Your task to perform on an android device: Open accessibility settings Image 0: 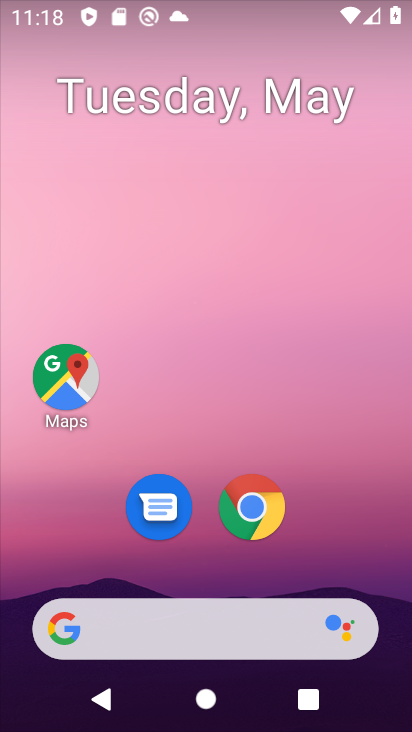
Step 0: drag from (256, 637) to (245, 163)
Your task to perform on an android device: Open accessibility settings Image 1: 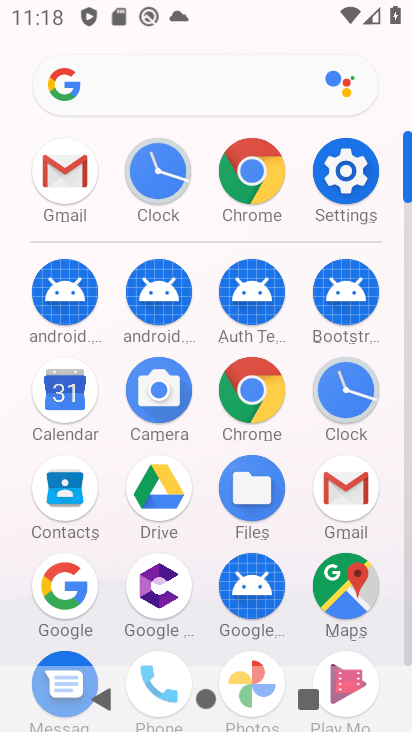
Step 1: click (339, 188)
Your task to perform on an android device: Open accessibility settings Image 2: 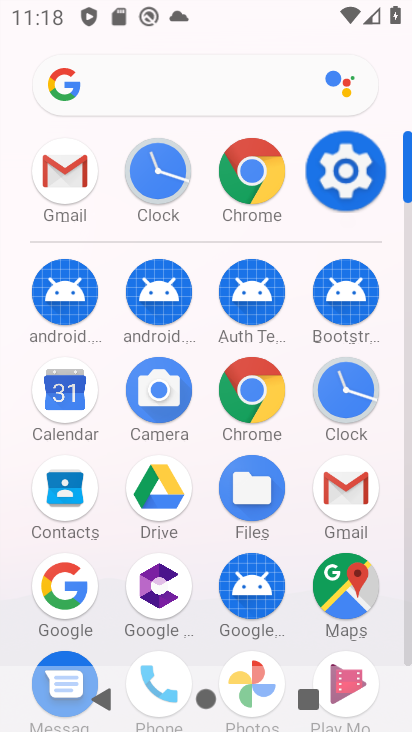
Step 2: click (336, 181)
Your task to perform on an android device: Open accessibility settings Image 3: 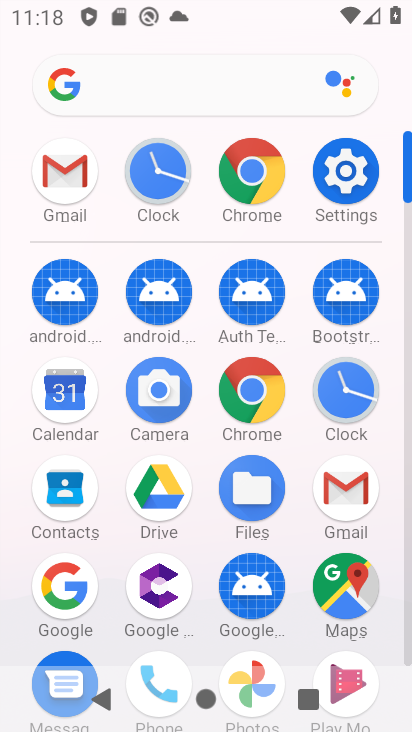
Step 3: click (339, 180)
Your task to perform on an android device: Open accessibility settings Image 4: 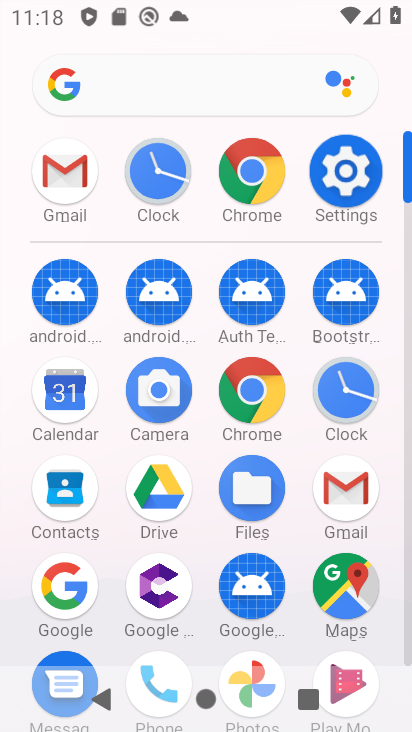
Step 4: click (339, 180)
Your task to perform on an android device: Open accessibility settings Image 5: 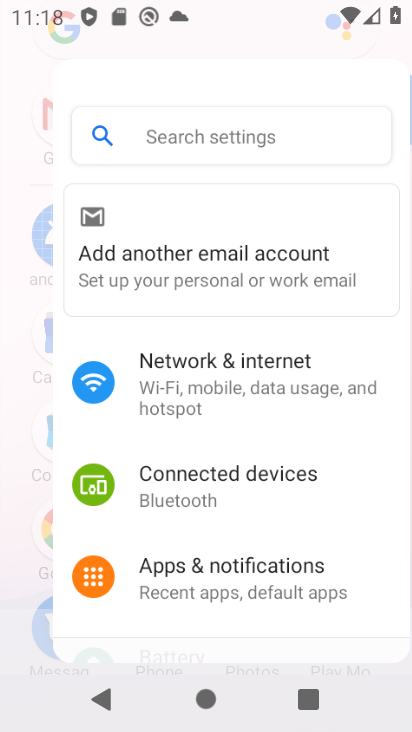
Step 5: click (339, 180)
Your task to perform on an android device: Open accessibility settings Image 6: 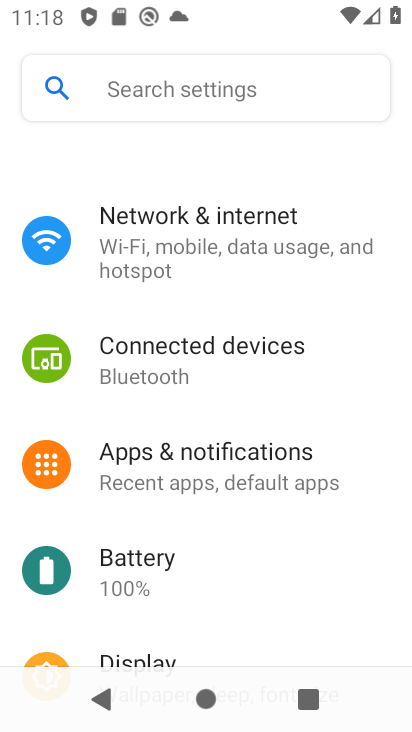
Step 6: click (339, 180)
Your task to perform on an android device: Open accessibility settings Image 7: 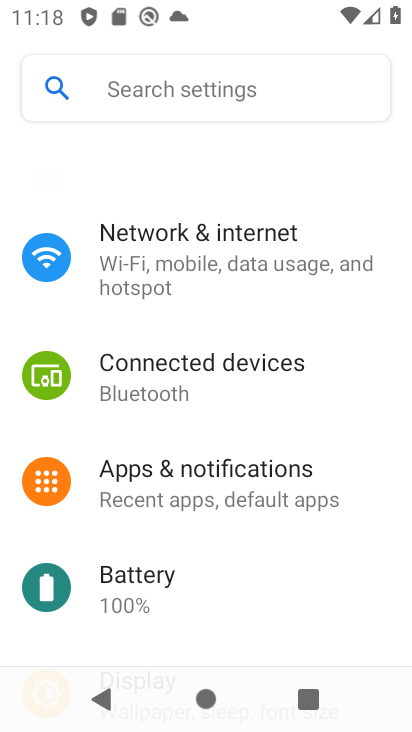
Step 7: click (339, 180)
Your task to perform on an android device: Open accessibility settings Image 8: 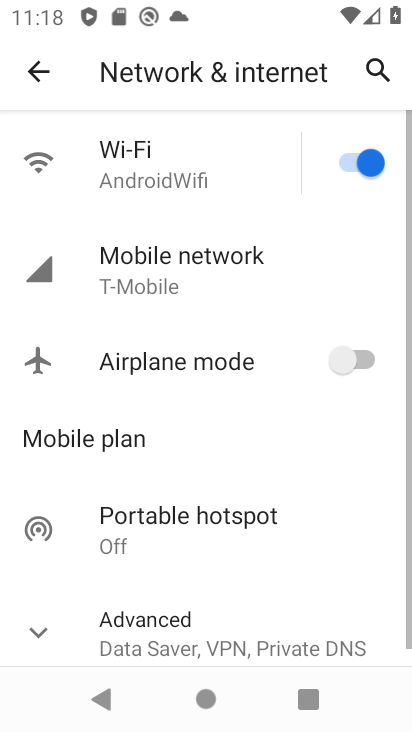
Step 8: drag from (164, 513) to (176, 174)
Your task to perform on an android device: Open accessibility settings Image 9: 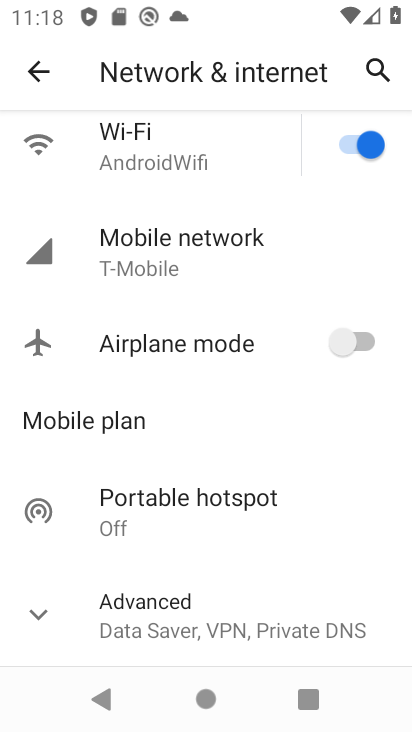
Step 9: click (36, 73)
Your task to perform on an android device: Open accessibility settings Image 10: 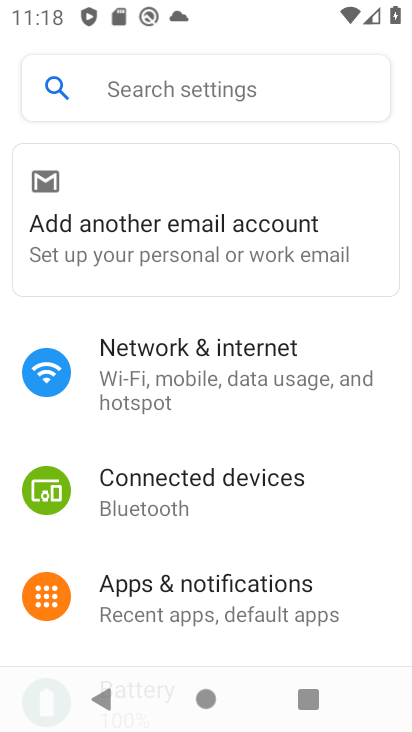
Step 10: drag from (171, 522) to (205, 279)
Your task to perform on an android device: Open accessibility settings Image 11: 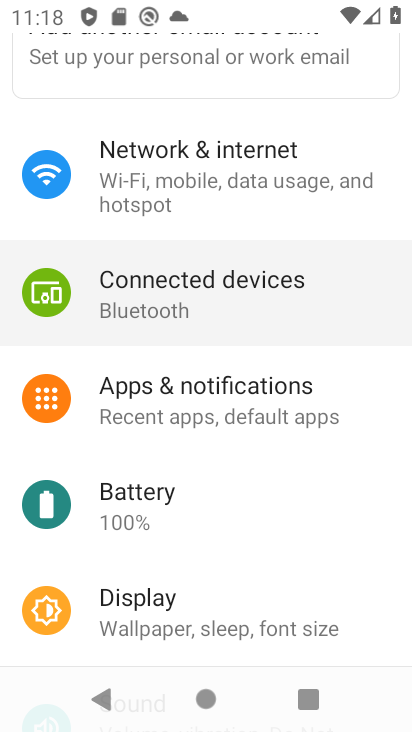
Step 11: drag from (246, 472) to (243, 185)
Your task to perform on an android device: Open accessibility settings Image 12: 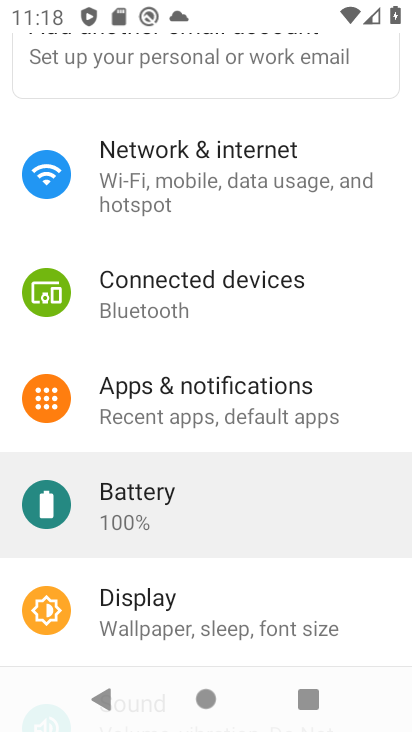
Step 12: drag from (235, 459) to (291, 190)
Your task to perform on an android device: Open accessibility settings Image 13: 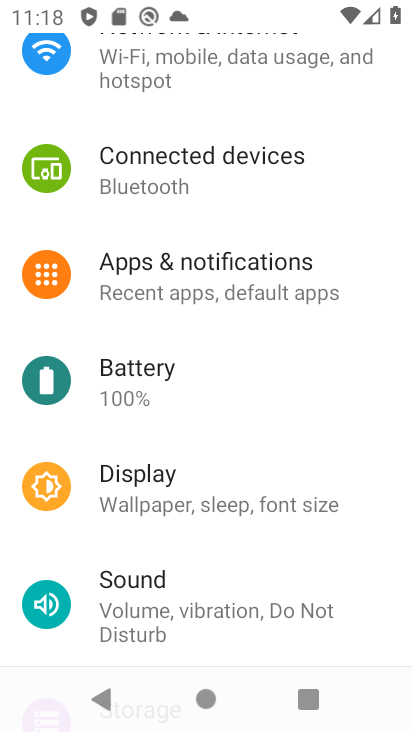
Step 13: drag from (246, 424) to (246, 135)
Your task to perform on an android device: Open accessibility settings Image 14: 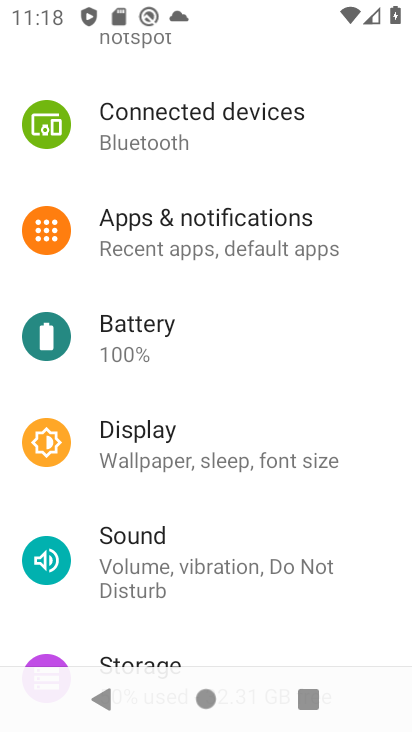
Step 14: drag from (177, 454) to (167, 162)
Your task to perform on an android device: Open accessibility settings Image 15: 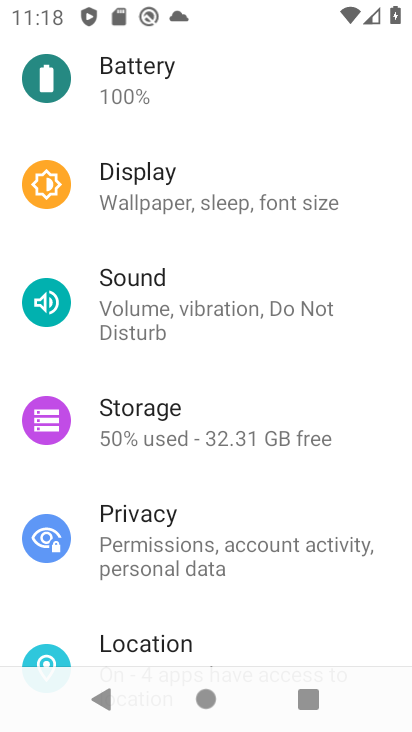
Step 15: drag from (177, 493) to (210, 158)
Your task to perform on an android device: Open accessibility settings Image 16: 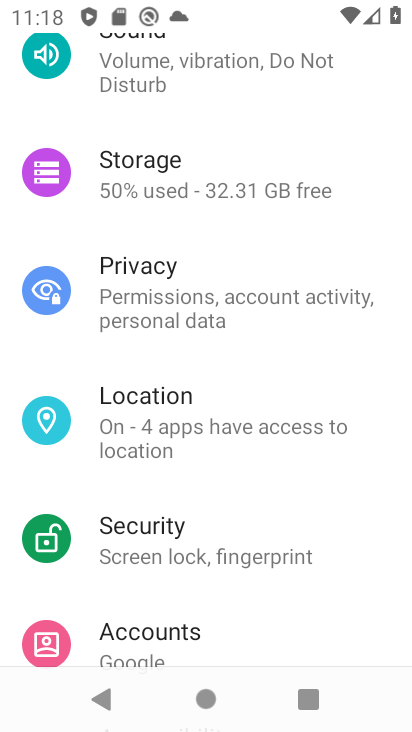
Step 16: drag from (189, 424) to (189, 184)
Your task to perform on an android device: Open accessibility settings Image 17: 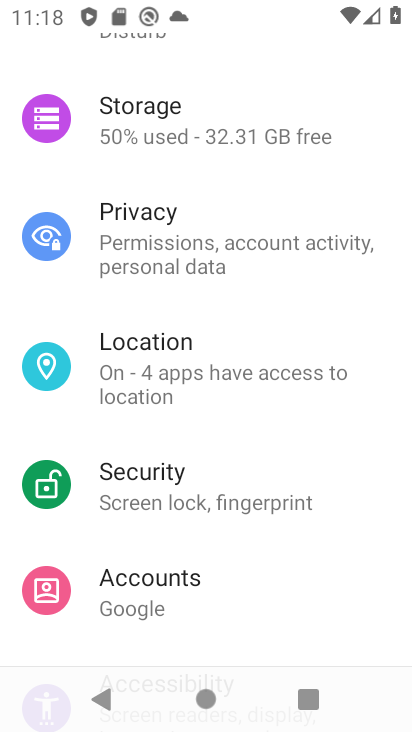
Step 17: drag from (179, 504) to (187, 117)
Your task to perform on an android device: Open accessibility settings Image 18: 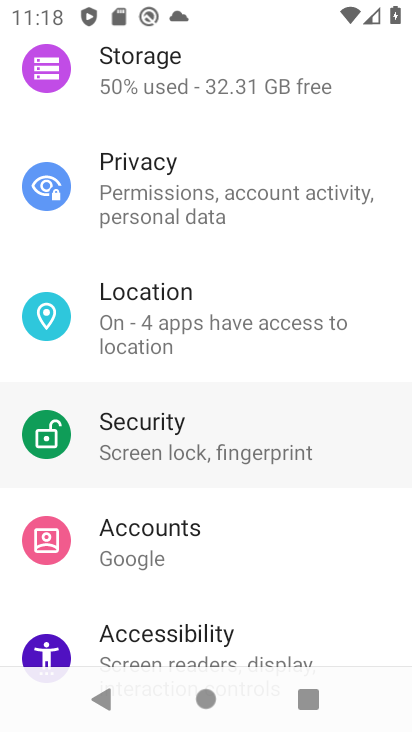
Step 18: drag from (187, 348) to (187, 153)
Your task to perform on an android device: Open accessibility settings Image 19: 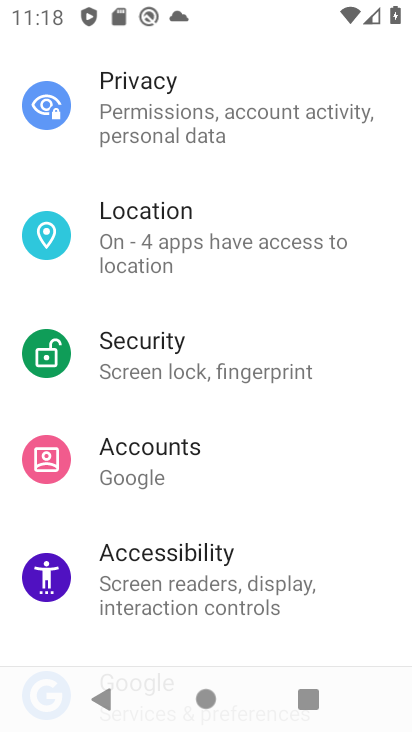
Step 19: click (156, 588)
Your task to perform on an android device: Open accessibility settings Image 20: 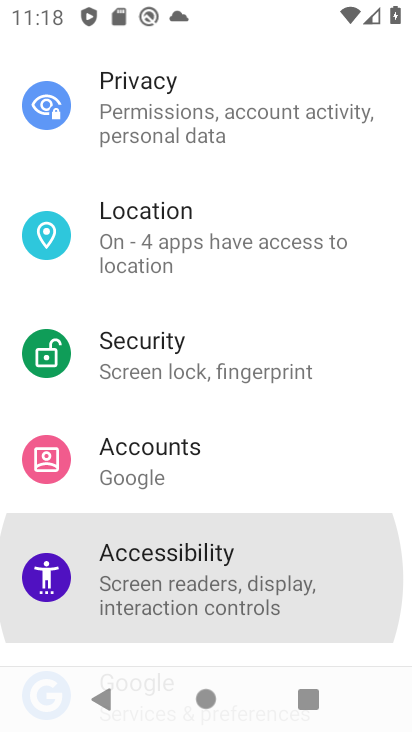
Step 20: click (155, 587)
Your task to perform on an android device: Open accessibility settings Image 21: 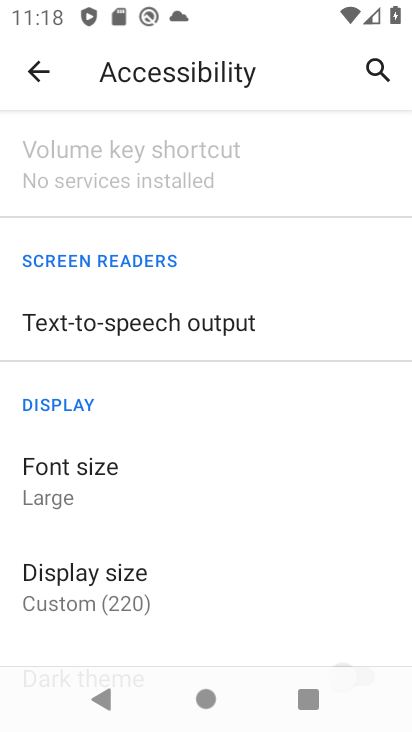
Step 21: task complete